Your task to perform on an android device: delete a single message in the gmail app Image 0: 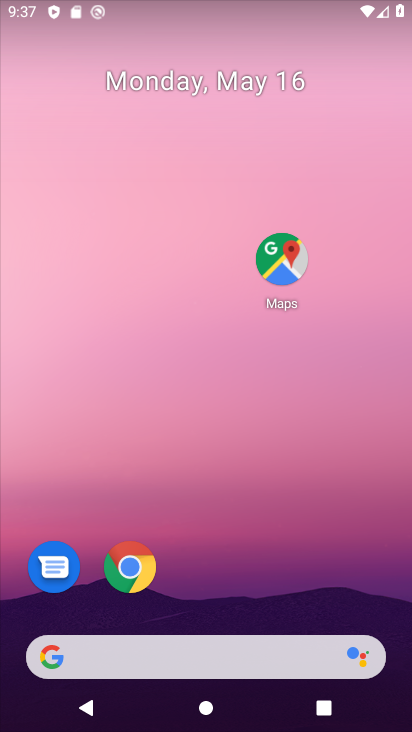
Step 0: drag from (259, 553) to (232, 102)
Your task to perform on an android device: delete a single message in the gmail app Image 1: 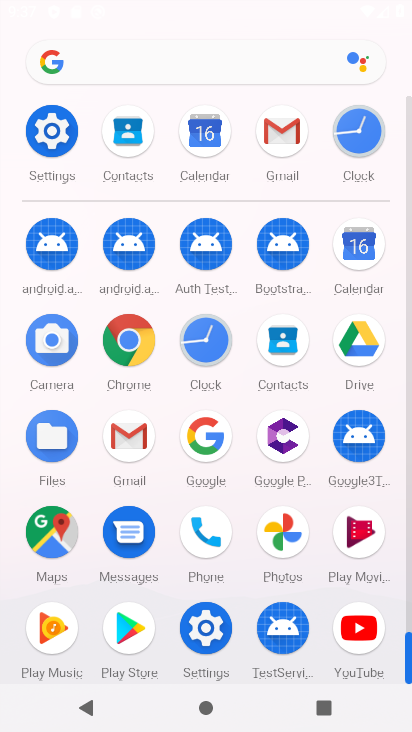
Step 1: click (286, 129)
Your task to perform on an android device: delete a single message in the gmail app Image 2: 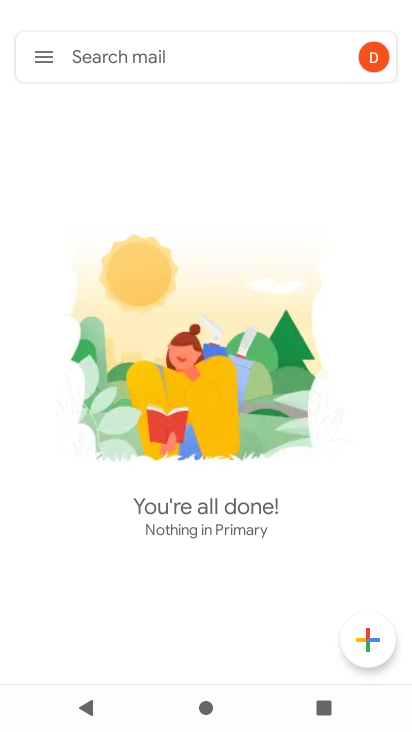
Step 2: click (43, 58)
Your task to perform on an android device: delete a single message in the gmail app Image 3: 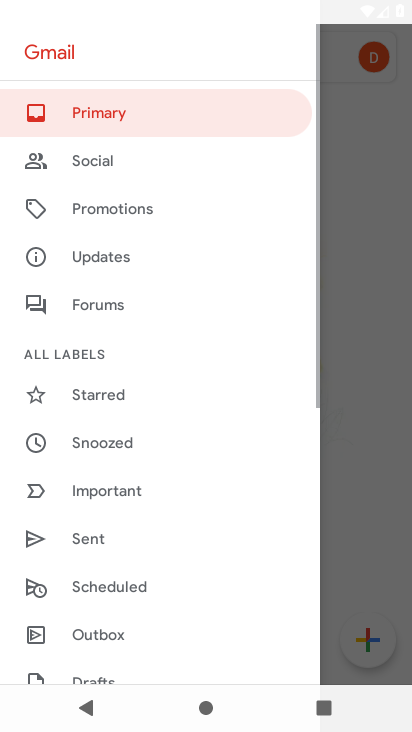
Step 3: drag from (122, 567) to (140, 204)
Your task to perform on an android device: delete a single message in the gmail app Image 4: 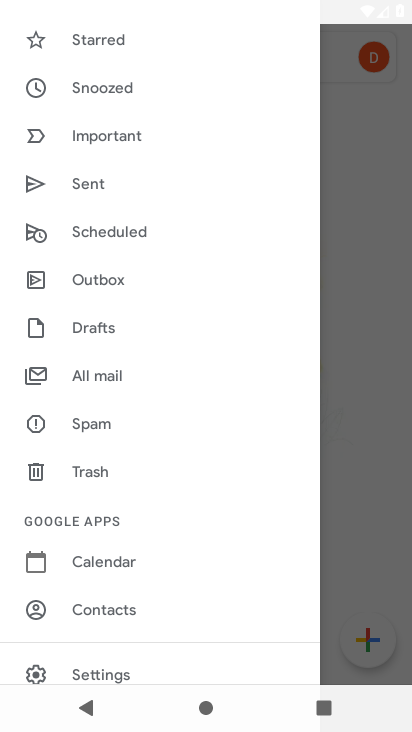
Step 4: click (103, 376)
Your task to perform on an android device: delete a single message in the gmail app Image 5: 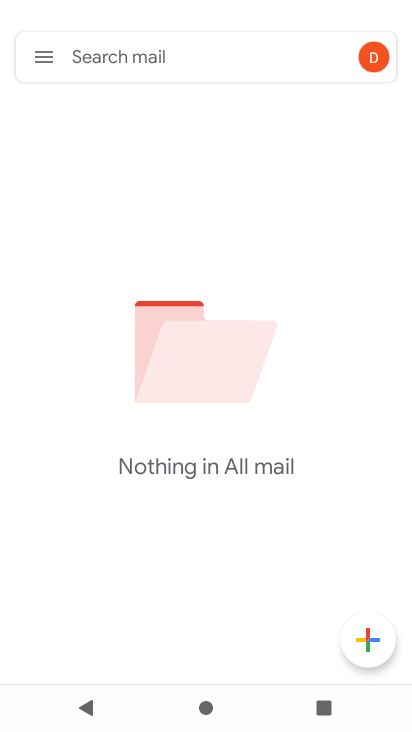
Step 5: task complete